Your task to perform on an android device: Do I have any events this weekend? Image 0: 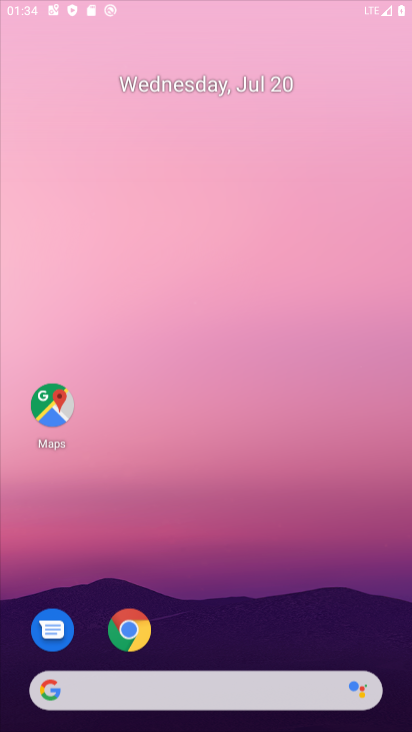
Step 0: drag from (259, 603) to (304, 121)
Your task to perform on an android device: Do I have any events this weekend? Image 1: 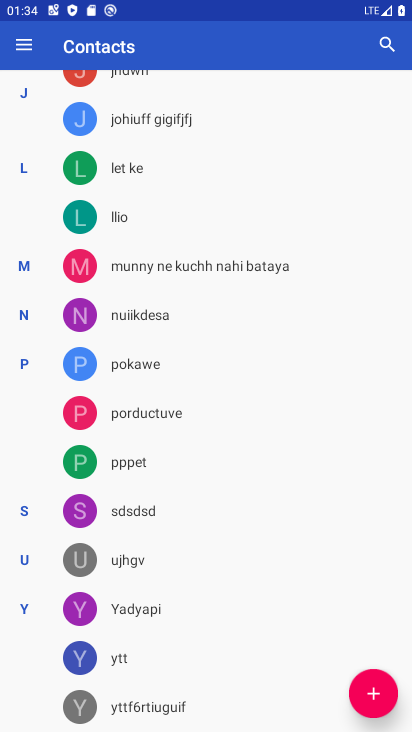
Step 1: press home button
Your task to perform on an android device: Do I have any events this weekend? Image 2: 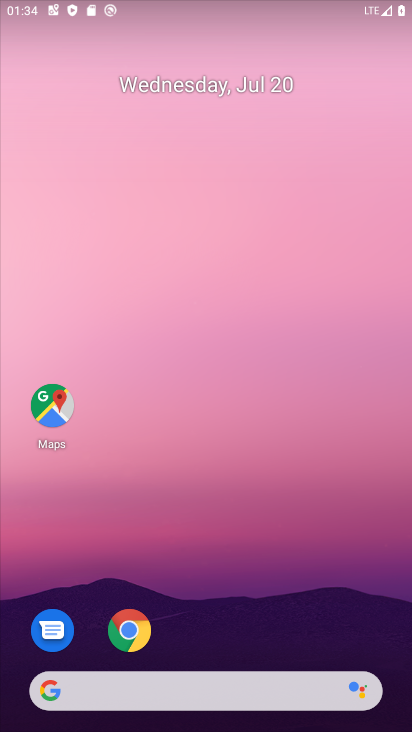
Step 2: drag from (282, 602) to (266, 0)
Your task to perform on an android device: Do I have any events this weekend? Image 3: 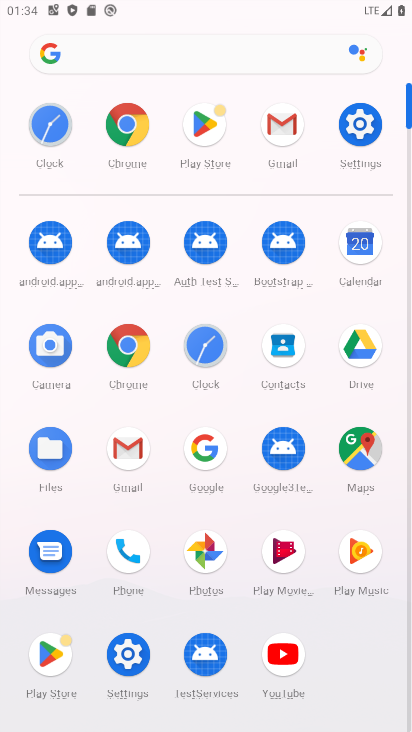
Step 3: click (368, 235)
Your task to perform on an android device: Do I have any events this weekend? Image 4: 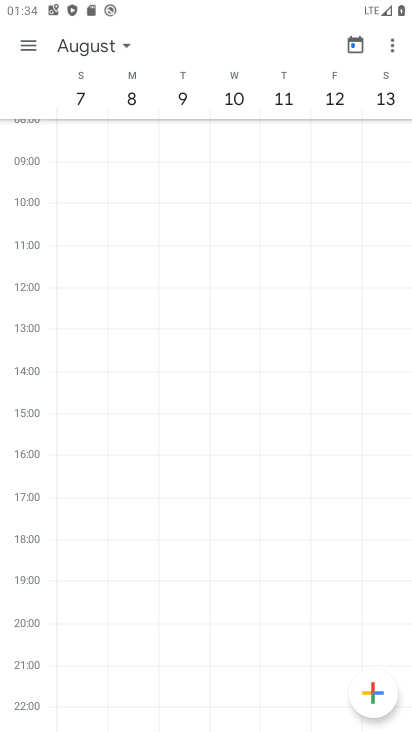
Step 4: click (101, 49)
Your task to perform on an android device: Do I have any events this weekend? Image 5: 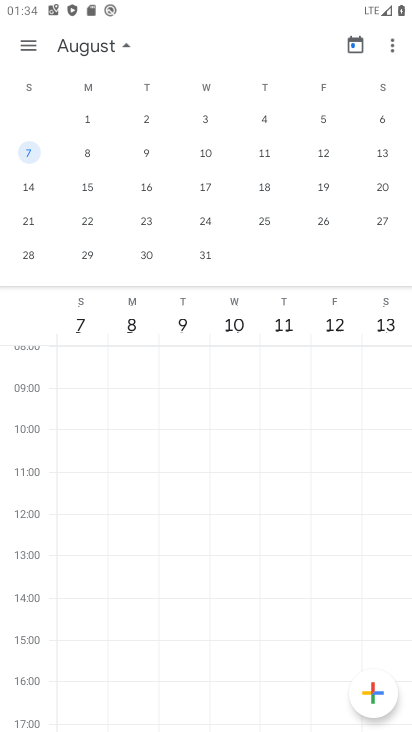
Step 5: drag from (44, 194) to (360, 217)
Your task to perform on an android device: Do I have any events this weekend? Image 6: 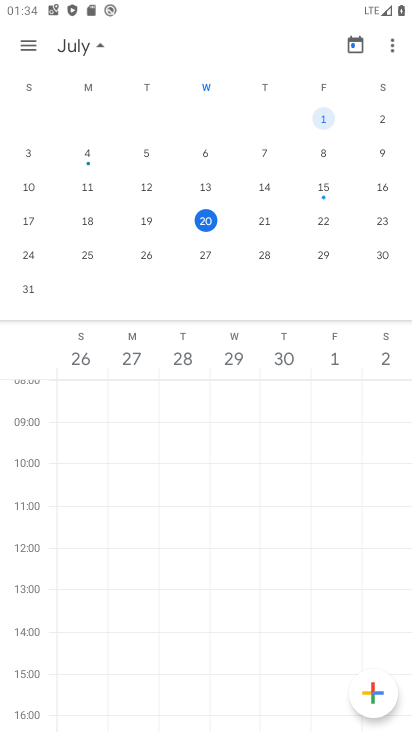
Step 6: click (378, 213)
Your task to perform on an android device: Do I have any events this weekend? Image 7: 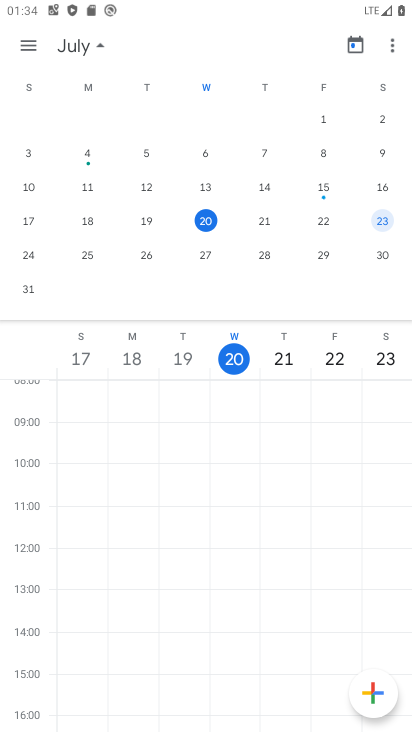
Step 7: task complete